Your task to perform on an android device: open chrome and create a bookmark for the current page Image 0: 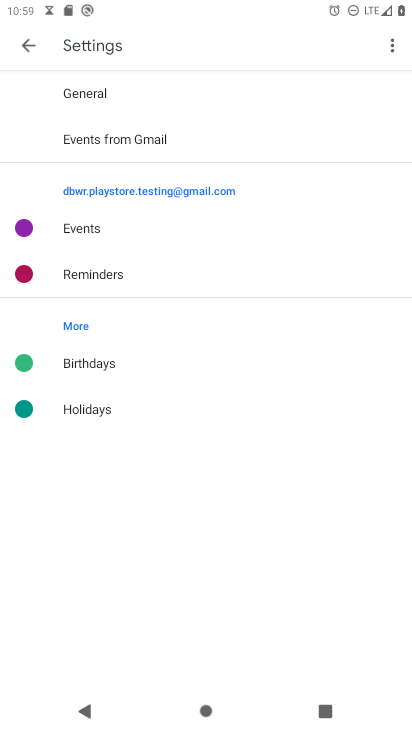
Step 0: press back button
Your task to perform on an android device: open chrome and create a bookmark for the current page Image 1: 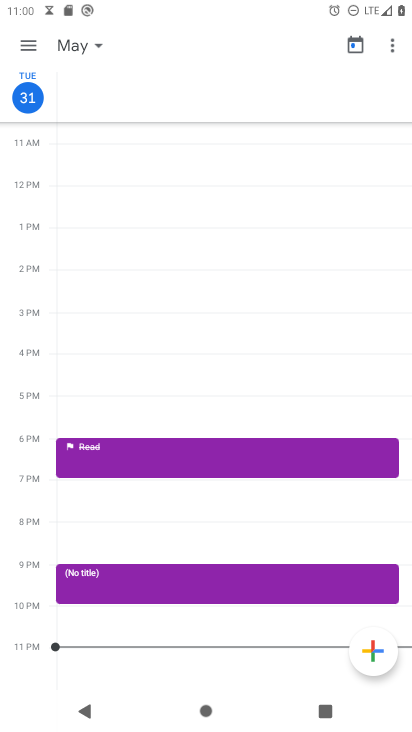
Step 1: press back button
Your task to perform on an android device: open chrome and create a bookmark for the current page Image 2: 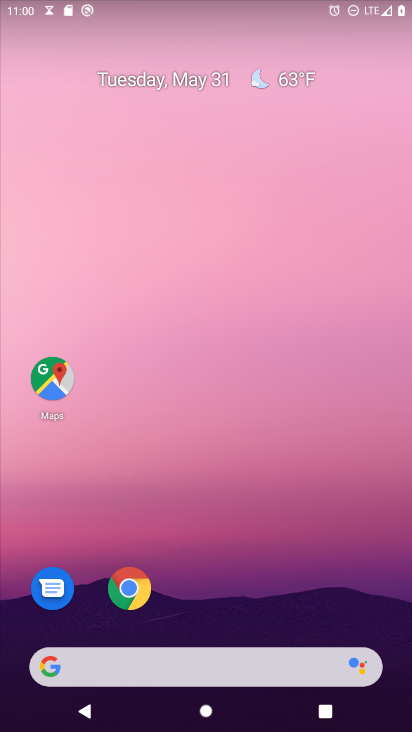
Step 2: click (130, 589)
Your task to perform on an android device: open chrome and create a bookmark for the current page Image 3: 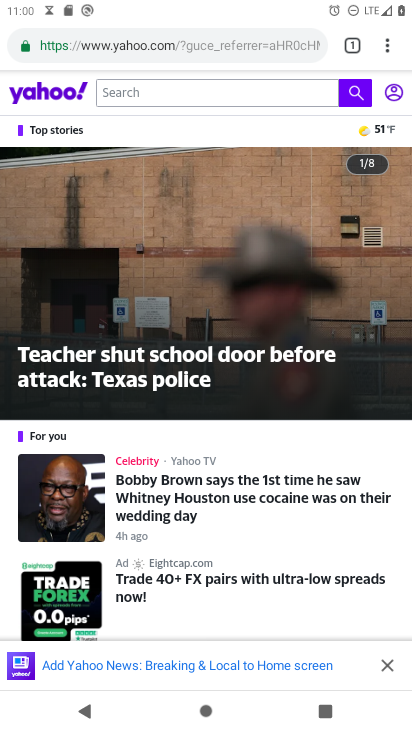
Step 3: click (388, 43)
Your task to perform on an android device: open chrome and create a bookmark for the current page Image 4: 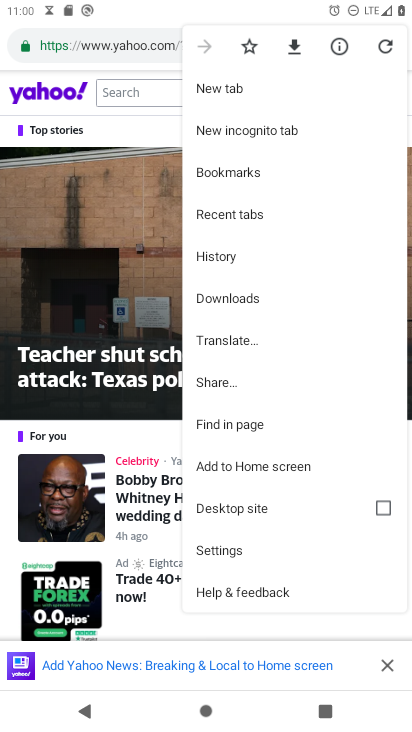
Step 4: click (246, 49)
Your task to perform on an android device: open chrome and create a bookmark for the current page Image 5: 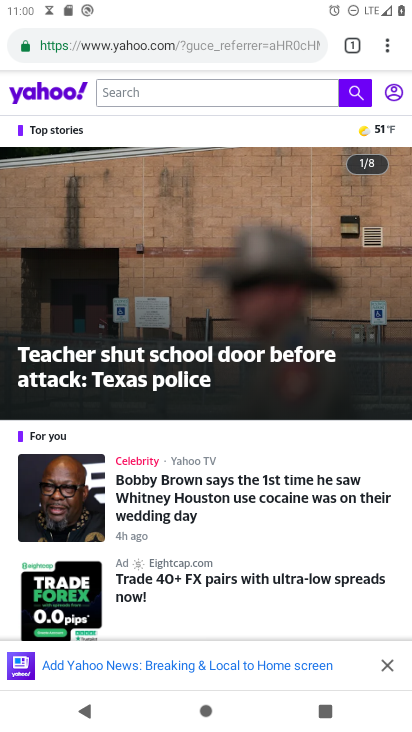
Step 5: task complete